Your task to perform on an android device: Open accessibility settings Image 0: 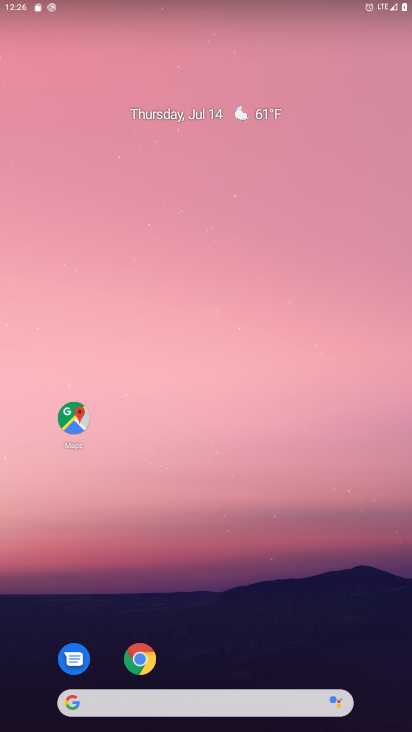
Step 0: press home button
Your task to perform on an android device: Open accessibility settings Image 1: 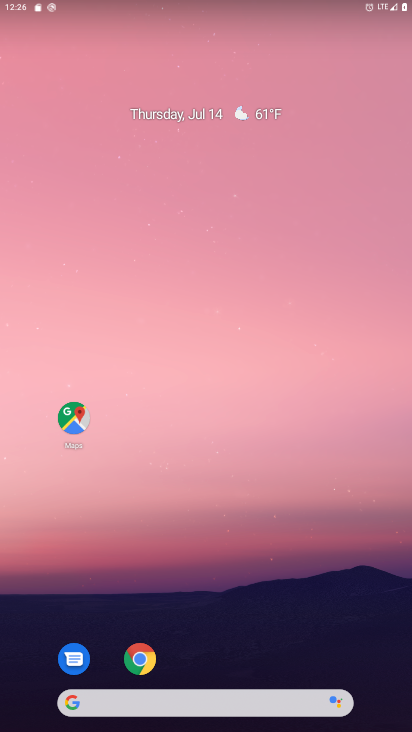
Step 1: drag from (213, 669) to (239, 174)
Your task to perform on an android device: Open accessibility settings Image 2: 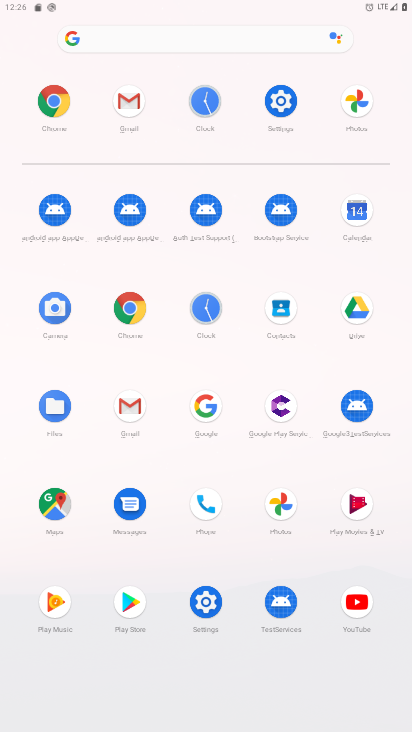
Step 2: click (283, 98)
Your task to perform on an android device: Open accessibility settings Image 3: 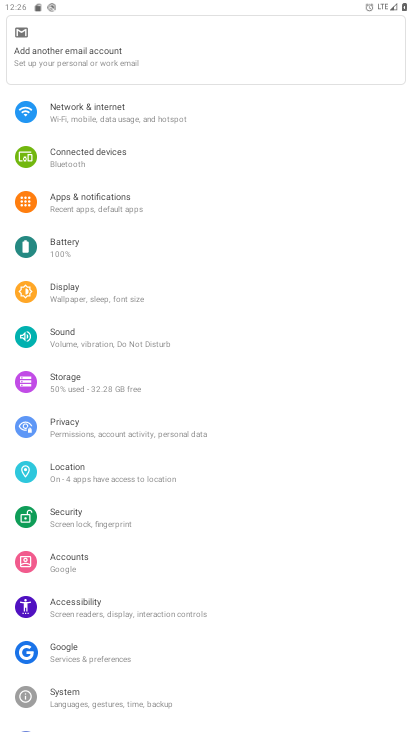
Step 3: click (115, 600)
Your task to perform on an android device: Open accessibility settings Image 4: 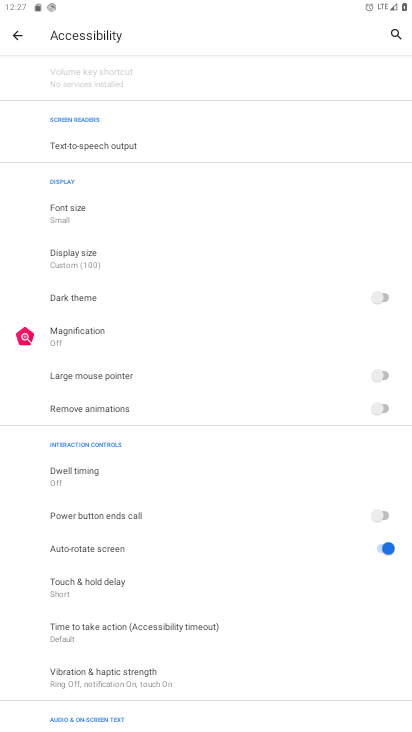
Step 4: task complete